Your task to perform on an android device: Is it going to rain today? Image 0: 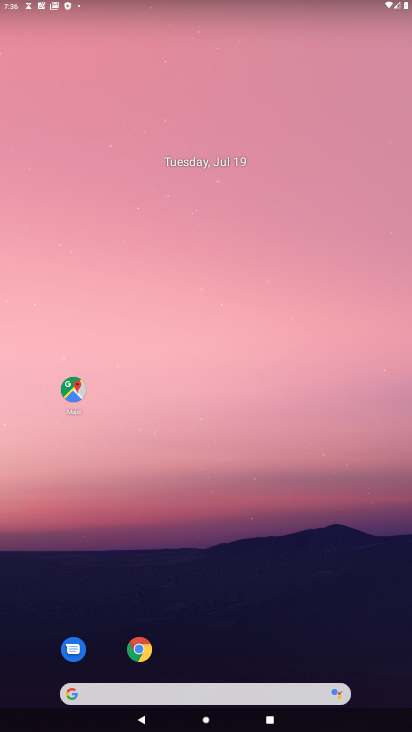
Step 0: drag from (195, 701) to (267, 199)
Your task to perform on an android device: Is it going to rain today? Image 1: 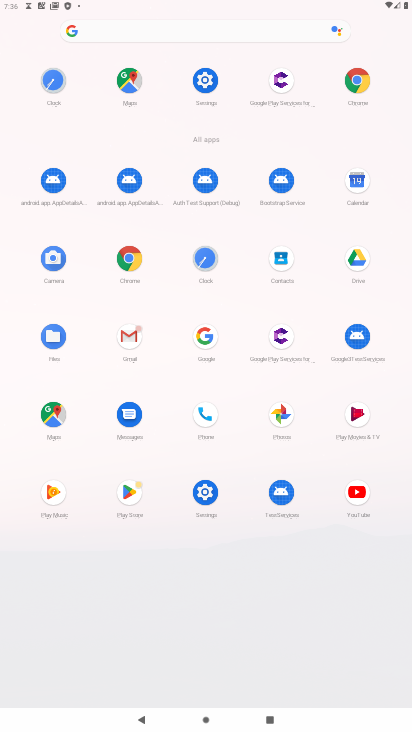
Step 1: click (202, 336)
Your task to perform on an android device: Is it going to rain today? Image 2: 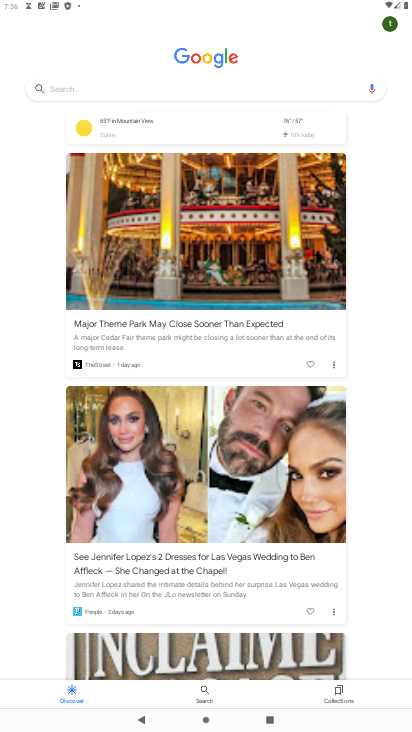
Step 2: click (163, 122)
Your task to perform on an android device: Is it going to rain today? Image 3: 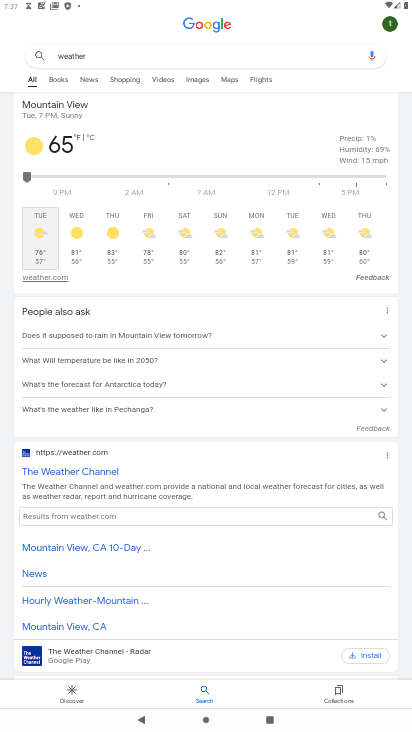
Step 3: task complete